Your task to perform on an android device: toggle notification dots Image 0: 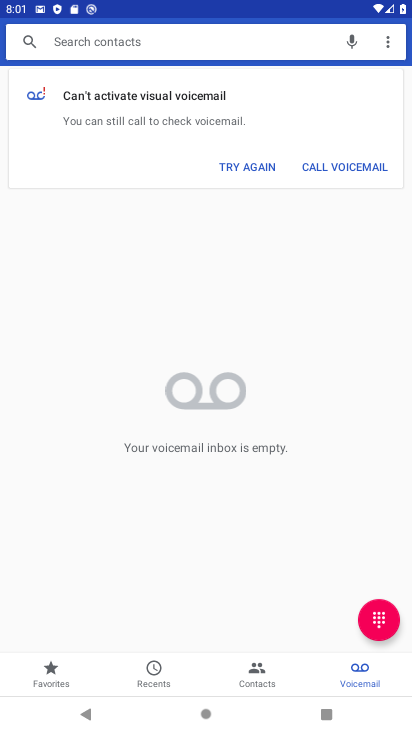
Step 0: press home button
Your task to perform on an android device: toggle notification dots Image 1: 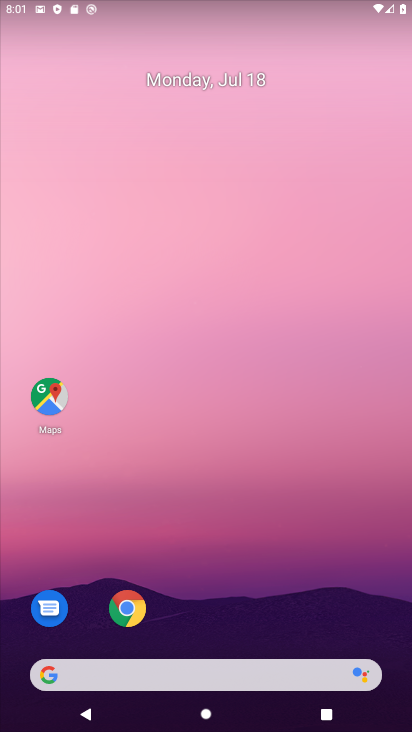
Step 1: drag from (247, 725) to (246, 101)
Your task to perform on an android device: toggle notification dots Image 2: 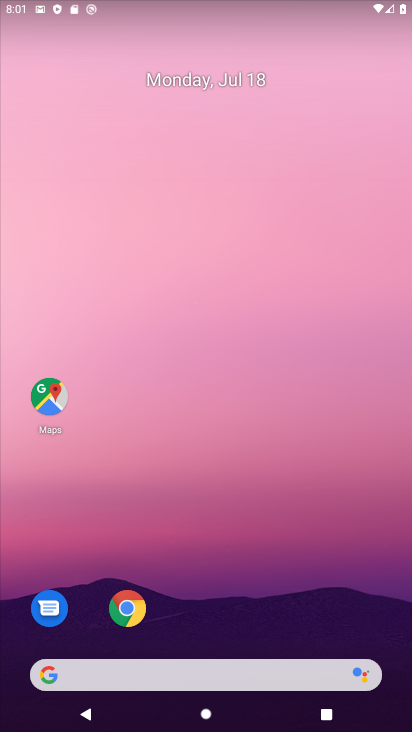
Step 2: drag from (248, 717) to (227, 100)
Your task to perform on an android device: toggle notification dots Image 3: 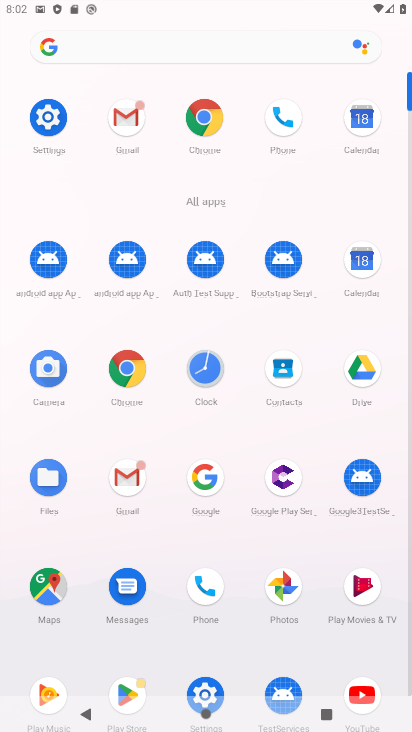
Step 3: click (45, 120)
Your task to perform on an android device: toggle notification dots Image 4: 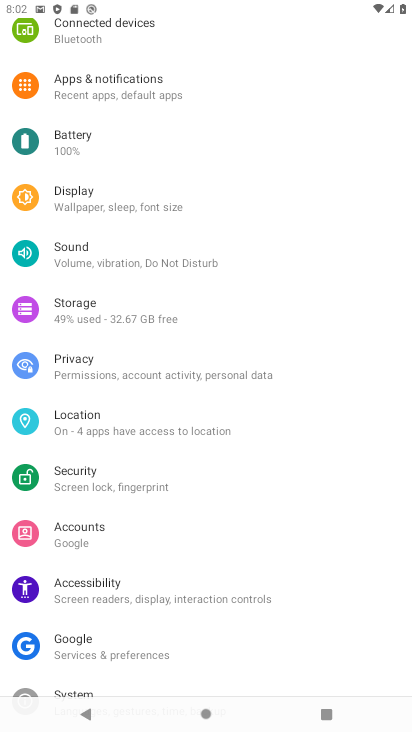
Step 4: click (129, 87)
Your task to perform on an android device: toggle notification dots Image 5: 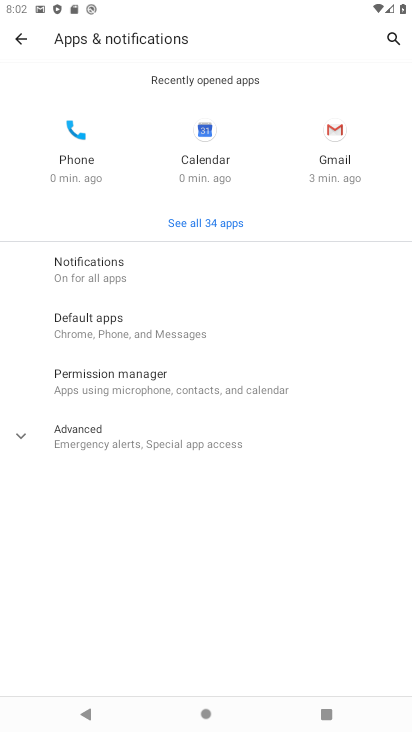
Step 5: click (77, 272)
Your task to perform on an android device: toggle notification dots Image 6: 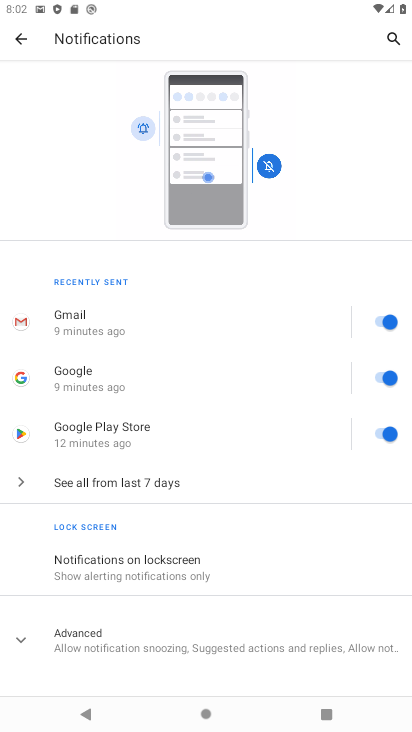
Step 6: click (71, 638)
Your task to perform on an android device: toggle notification dots Image 7: 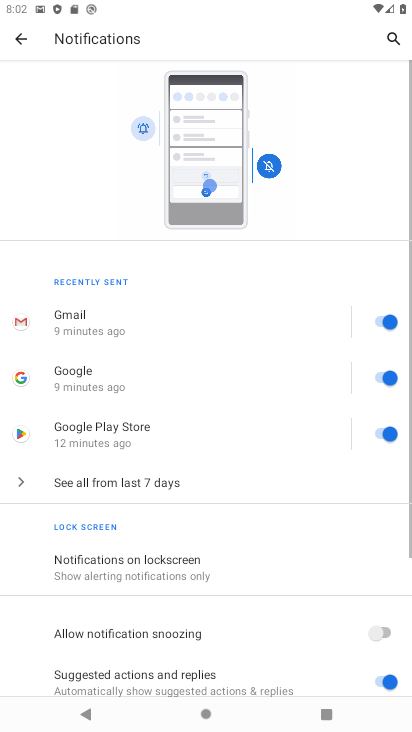
Step 7: drag from (297, 645) to (288, 325)
Your task to perform on an android device: toggle notification dots Image 8: 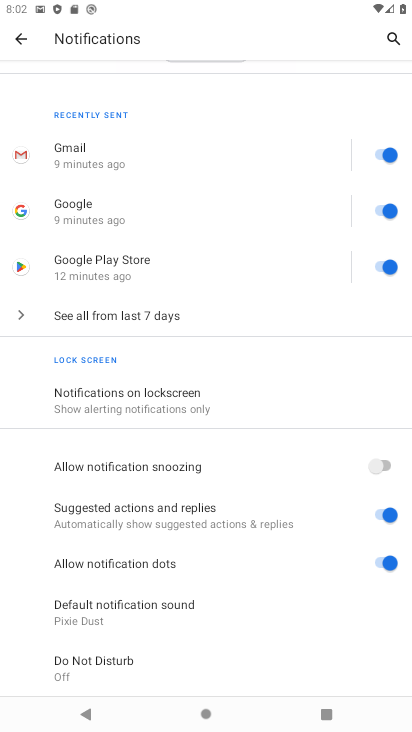
Step 8: click (384, 560)
Your task to perform on an android device: toggle notification dots Image 9: 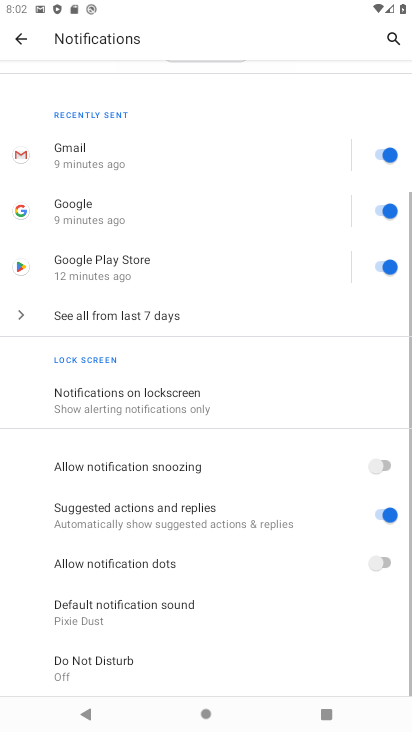
Step 9: task complete